Your task to perform on an android device: Check the news Image 0: 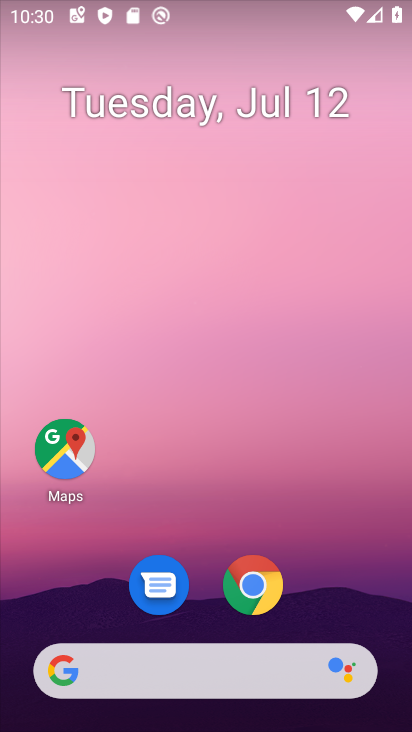
Step 0: drag from (243, 508) to (290, 0)
Your task to perform on an android device: Check the news Image 1: 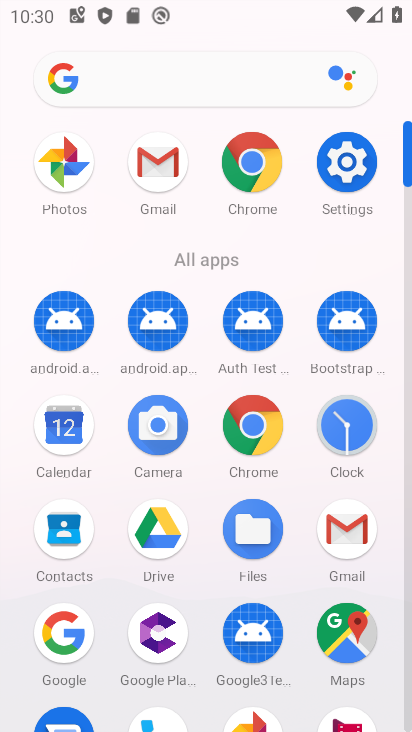
Step 1: click (182, 79)
Your task to perform on an android device: Check the news Image 2: 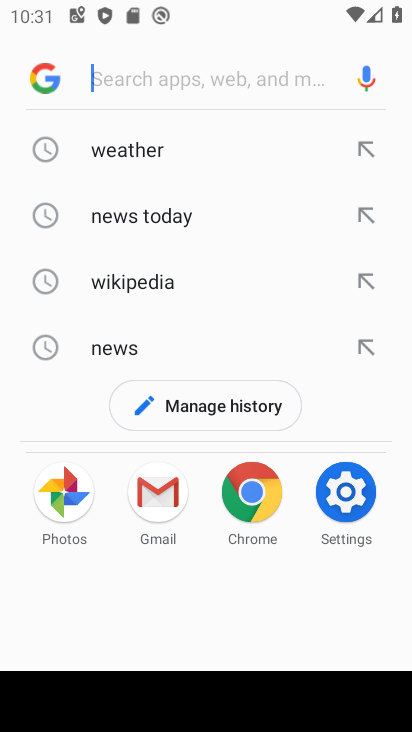
Step 2: click (119, 349)
Your task to perform on an android device: Check the news Image 3: 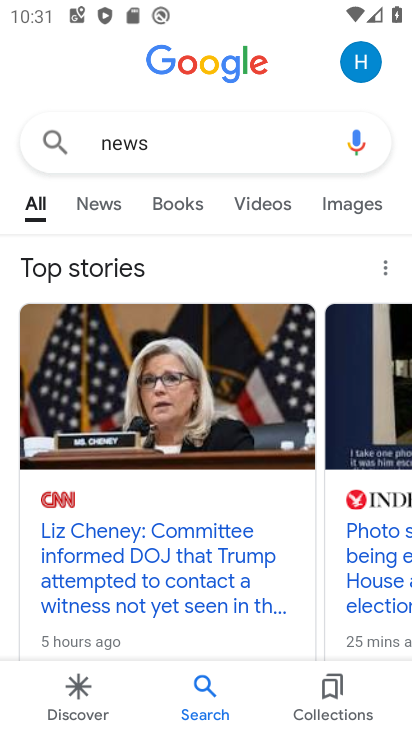
Step 3: task complete